Your task to perform on an android device: Open calendar and show me the first week of next month Image 0: 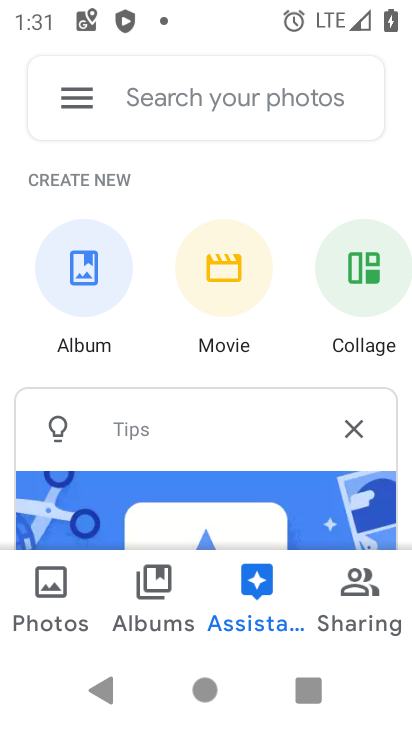
Step 0: press home button
Your task to perform on an android device: Open calendar and show me the first week of next month Image 1: 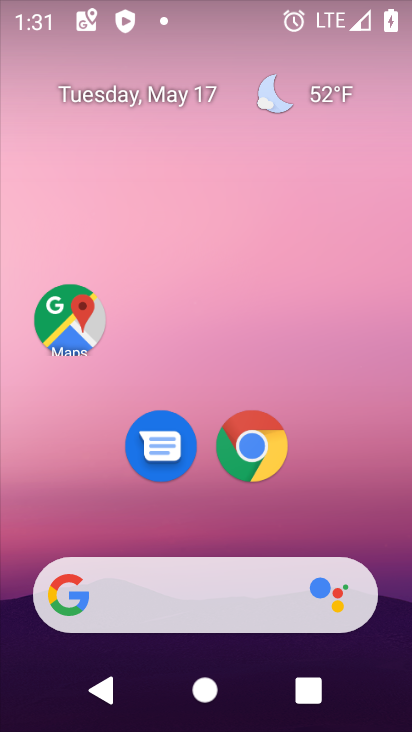
Step 1: drag from (170, 484) to (264, 221)
Your task to perform on an android device: Open calendar and show me the first week of next month Image 2: 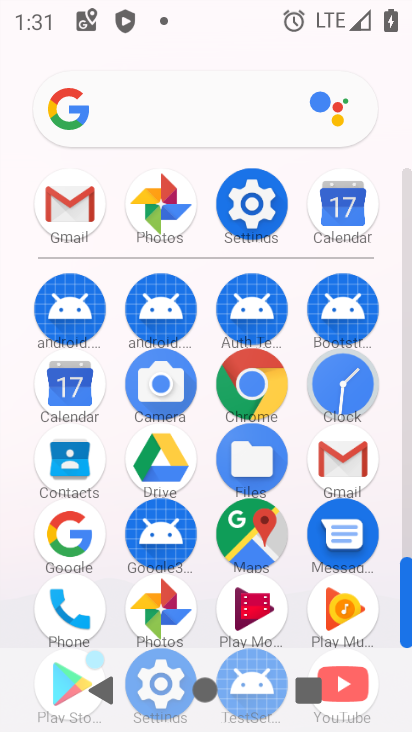
Step 2: click (92, 393)
Your task to perform on an android device: Open calendar and show me the first week of next month Image 3: 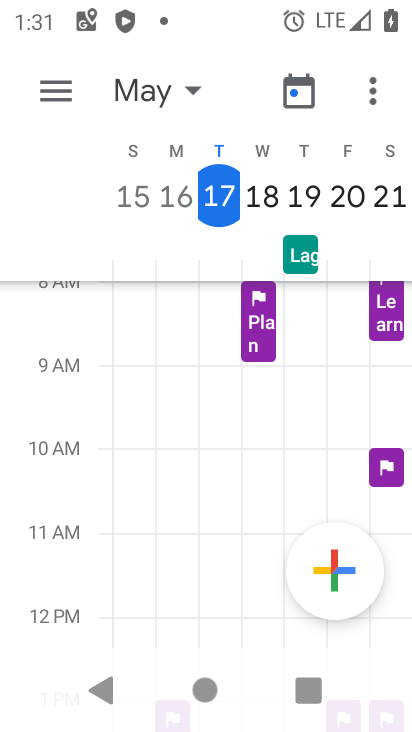
Step 3: click (191, 96)
Your task to perform on an android device: Open calendar and show me the first week of next month Image 4: 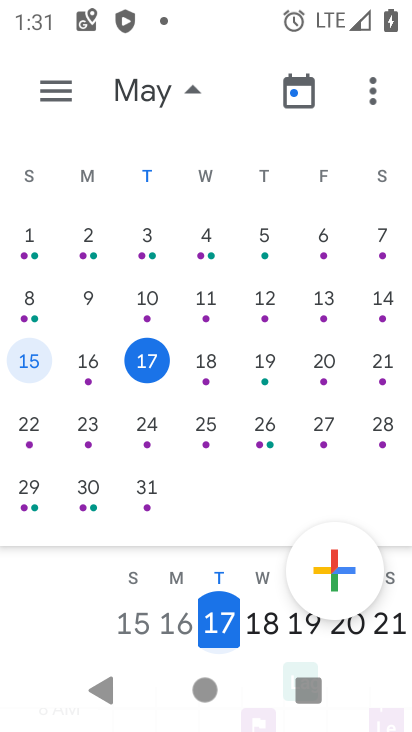
Step 4: click (139, 241)
Your task to perform on an android device: Open calendar and show me the first week of next month Image 5: 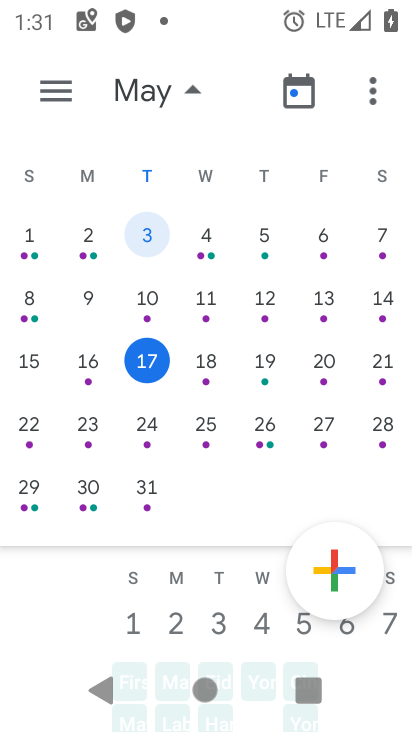
Step 5: drag from (395, 345) to (52, 299)
Your task to perform on an android device: Open calendar and show me the first week of next month Image 6: 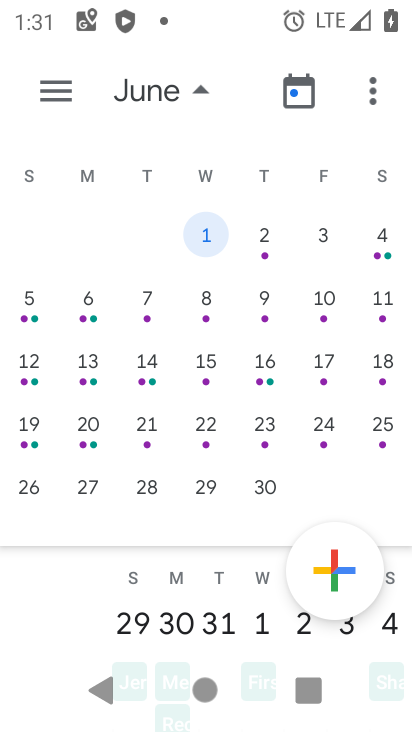
Step 6: click (250, 233)
Your task to perform on an android device: Open calendar and show me the first week of next month Image 7: 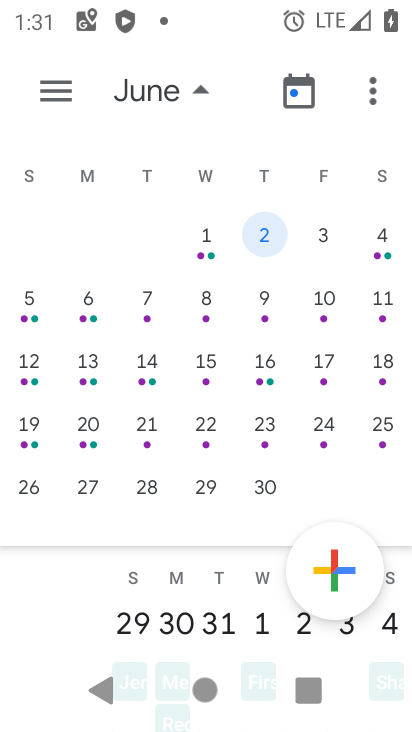
Step 7: click (52, 99)
Your task to perform on an android device: Open calendar and show me the first week of next month Image 8: 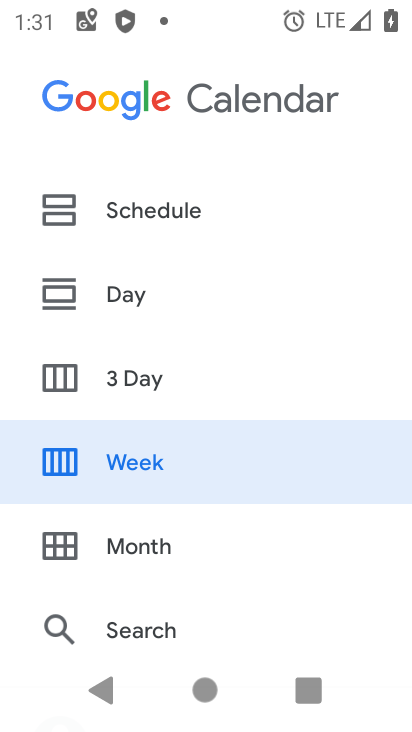
Step 8: click (128, 456)
Your task to perform on an android device: Open calendar and show me the first week of next month Image 9: 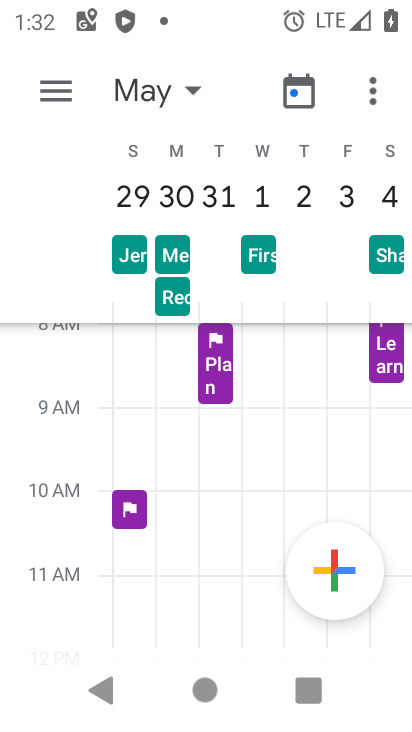
Step 9: task complete